Your task to perform on an android device: Open Android settings Image 0: 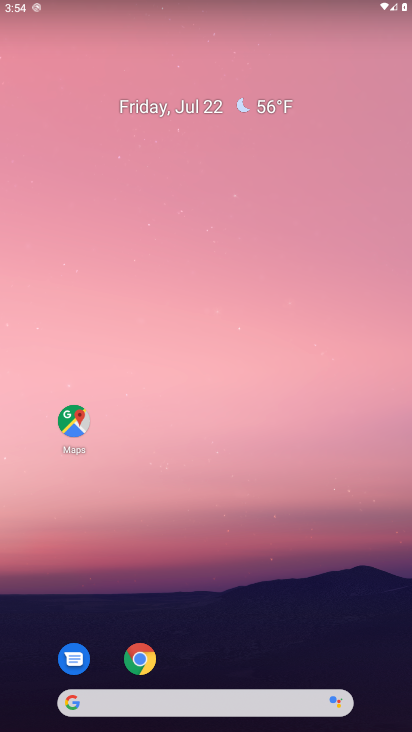
Step 0: drag from (176, 653) to (236, 219)
Your task to perform on an android device: Open Android settings Image 1: 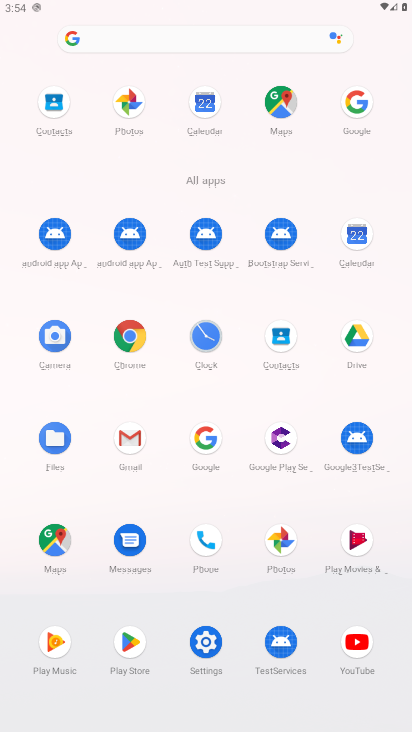
Step 1: click (203, 647)
Your task to perform on an android device: Open Android settings Image 2: 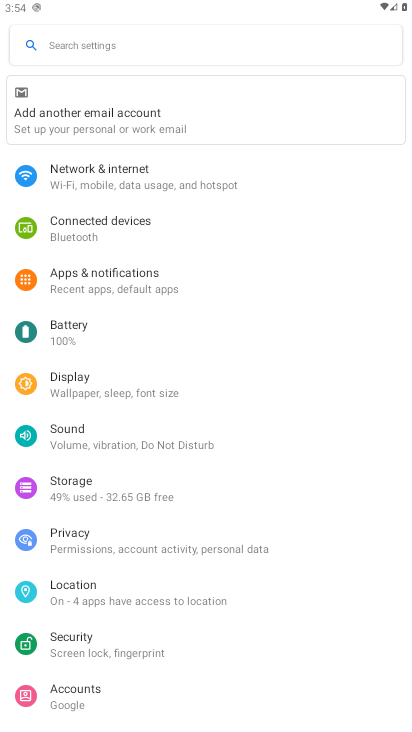
Step 2: task complete